Your task to perform on an android device: delete browsing data in the chrome app Image 0: 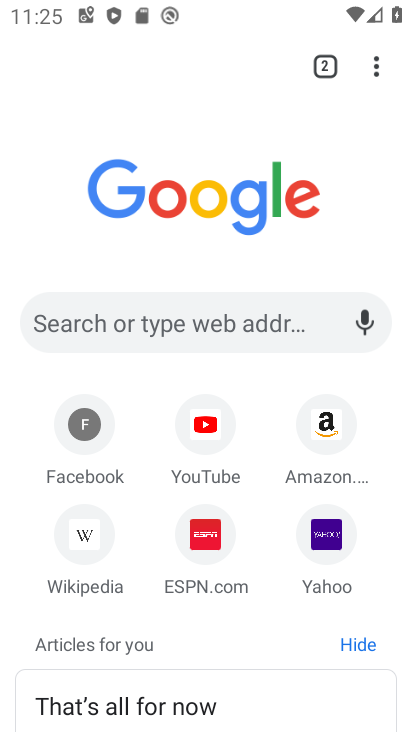
Step 0: click (378, 67)
Your task to perform on an android device: delete browsing data in the chrome app Image 1: 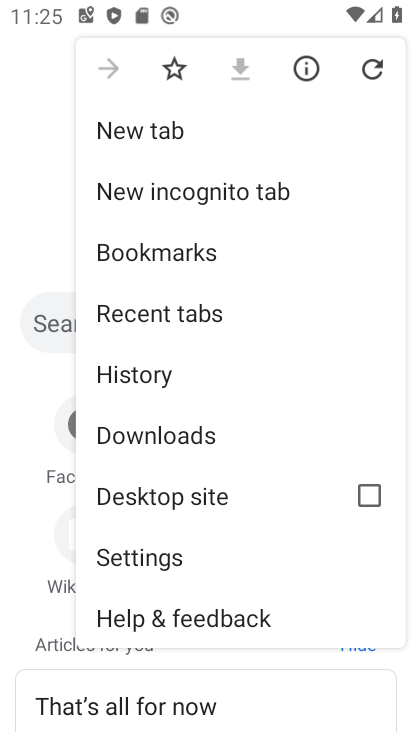
Step 1: click (159, 376)
Your task to perform on an android device: delete browsing data in the chrome app Image 2: 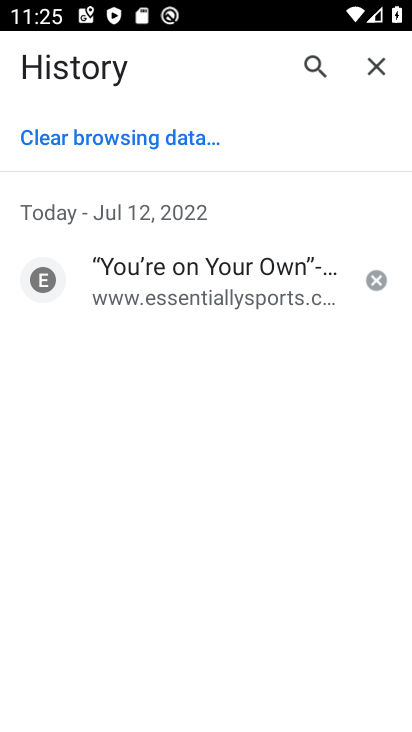
Step 2: click (131, 128)
Your task to perform on an android device: delete browsing data in the chrome app Image 3: 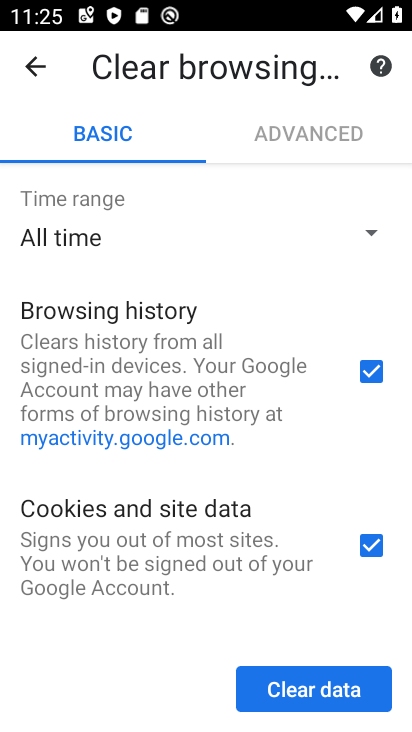
Step 3: drag from (306, 579) to (301, 382)
Your task to perform on an android device: delete browsing data in the chrome app Image 4: 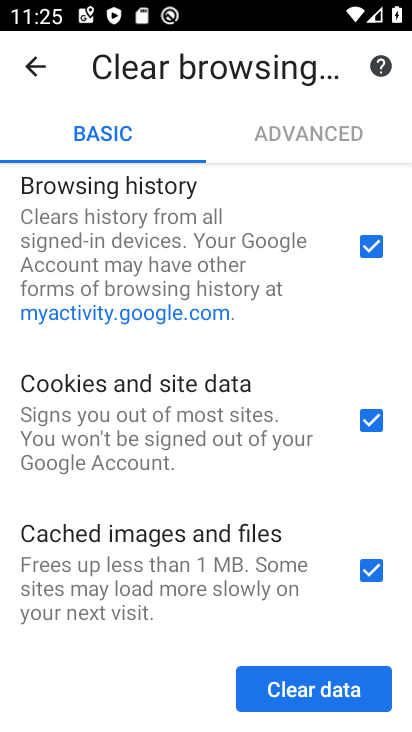
Step 4: click (314, 691)
Your task to perform on an android device: delete browsing data in the chrome app Image 5: 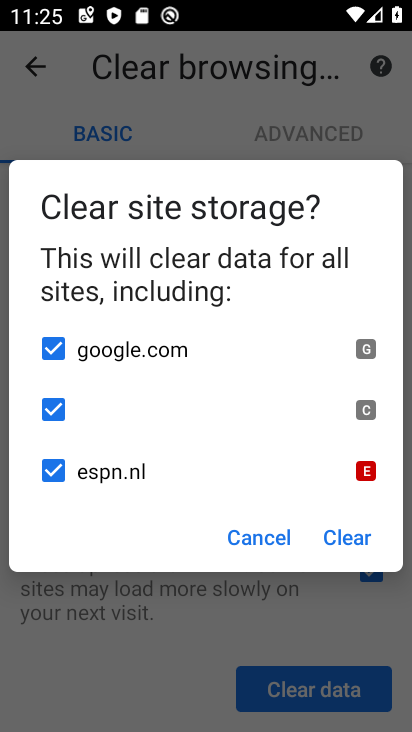
Step 5: click (340, 536)
Your task to perform on an android device: delete browsing data in the chrome app Image 6: 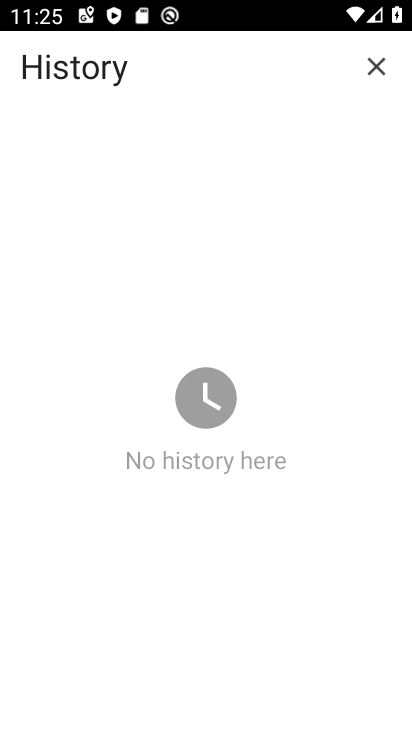
Step 6: task complete